Your task to perform on an android device: Go to Google Image 0: 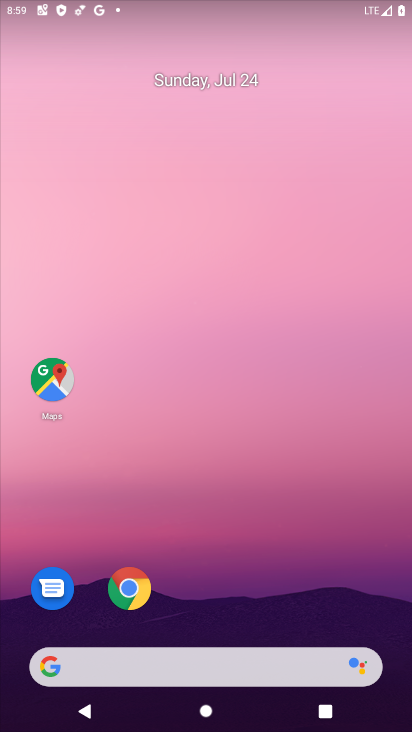
Step 0: drag from (208, 650) to (209, 141)
Your task to perform on an android device: Go to Google Image 1: 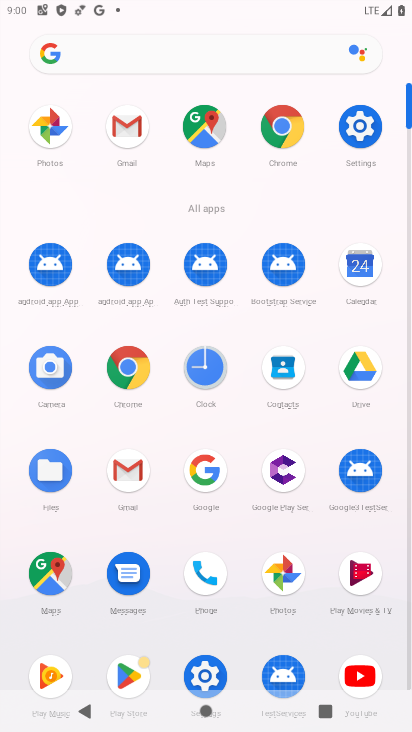
Step 1: click (199, 484)
Your task to perform on an android device: Go to Google Image 2: 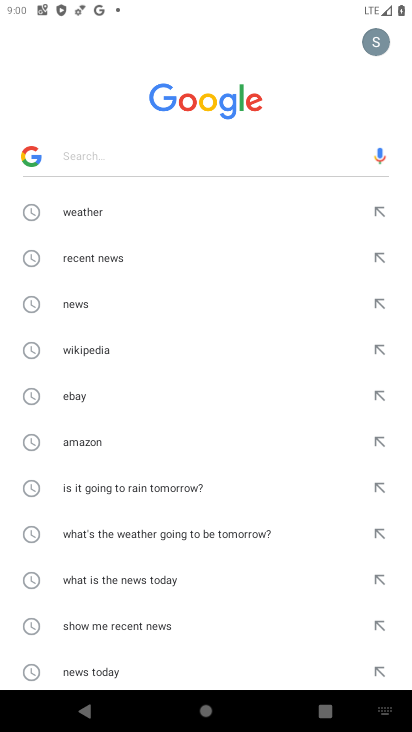
Step 2: task complete